Your task to perform on an android device: open a bookmark in the chrome app Image 0: 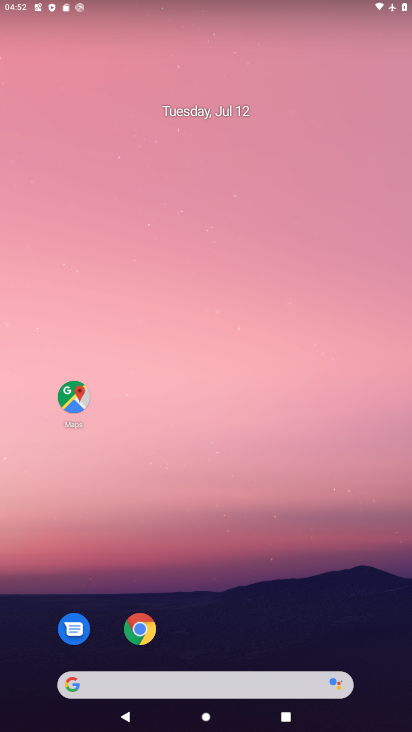
Step 0: drag from (255, 587) to (288, 51)
Your task to perform on an android device: open a bookmark in the chrome app Image 1: 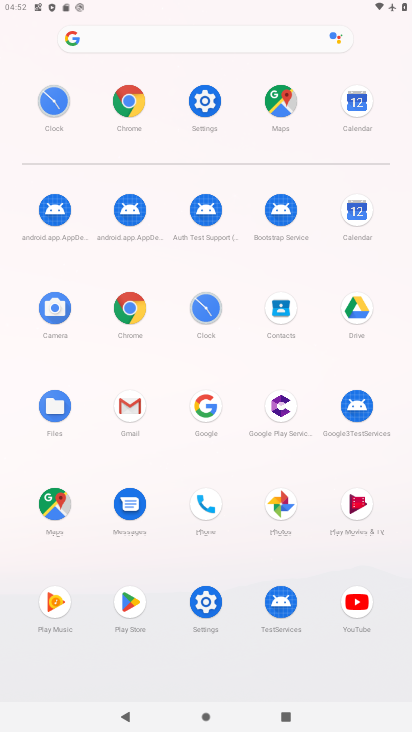
Step 1: click (124, 105)
Your task to perform on an android device: open a bookmark in the chrome app Image 2: 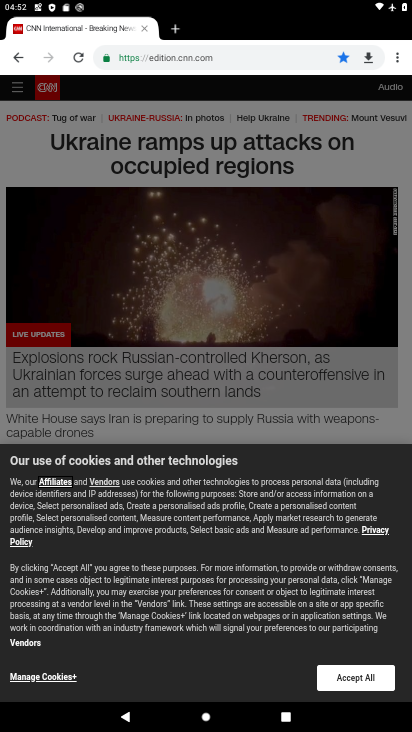
Step 2: drag from (397, 49) to (269, 113)
Your task to perform on an android device: open a bookmark in the chrome app Image 3: 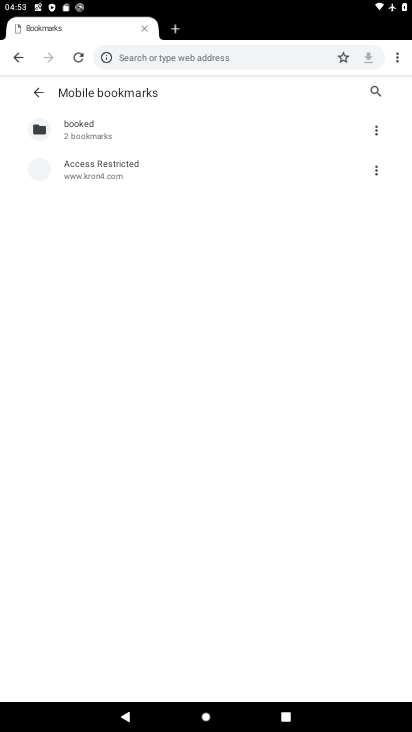
Step 3: click (112, 173)
Your task to perform on an android device: open a bookmark in the chrome app Image 4: 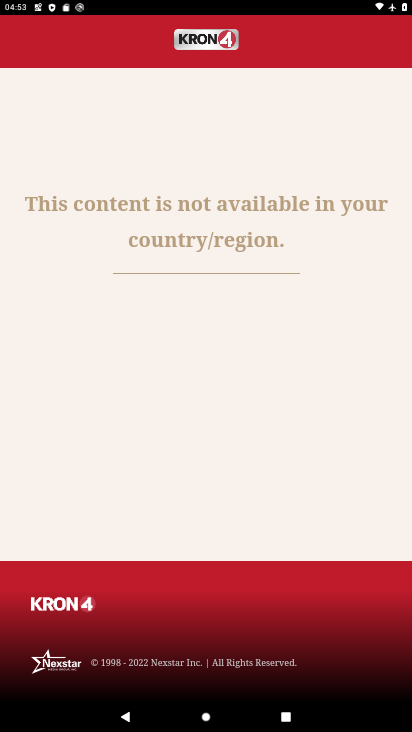
Step 4: task complete